Your task to perform on an android device: delete location history Image 0: 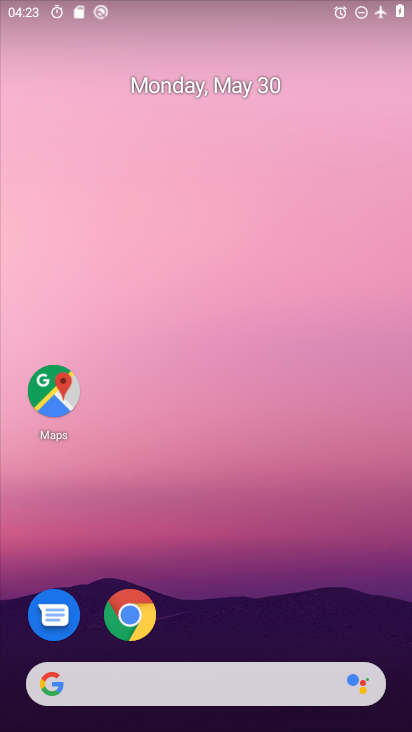
Step 0: click (52, 393)
Your task to perform on an android device: delete location history Image 1: 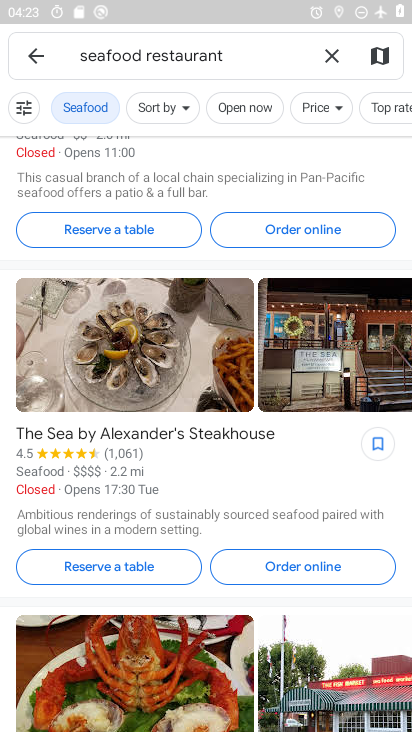
Step 1: click (329, 56)
Your task to perform on an android device: delete location history Image 2: 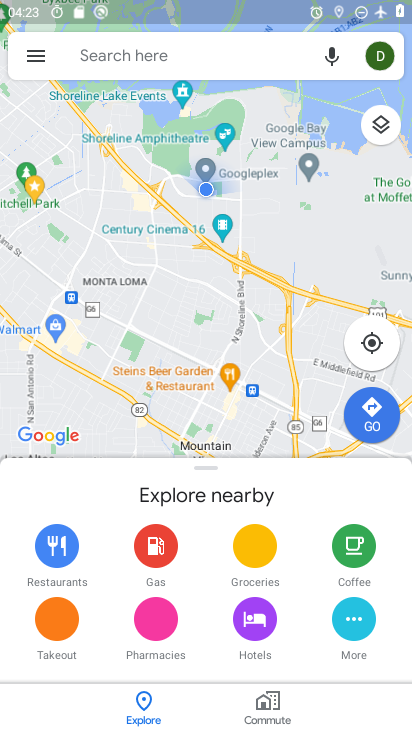
Step 2: click (36, 61)
Your task to perform on an android device: delete location history Image 3: 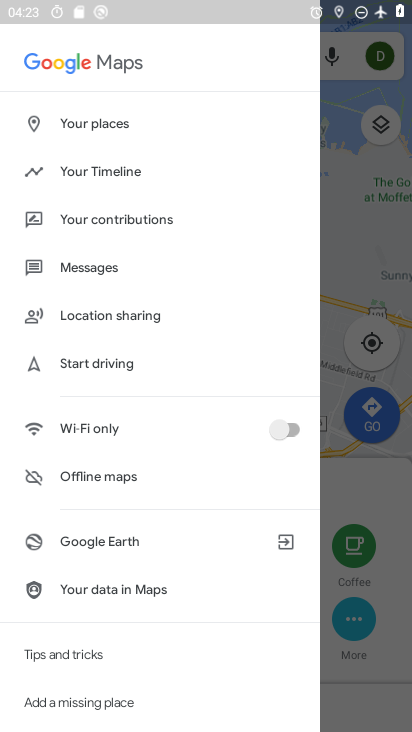
Step 3: drag from (91, 523) to (117, 420)
Your task to perform on an android device: delete location history Image 4: 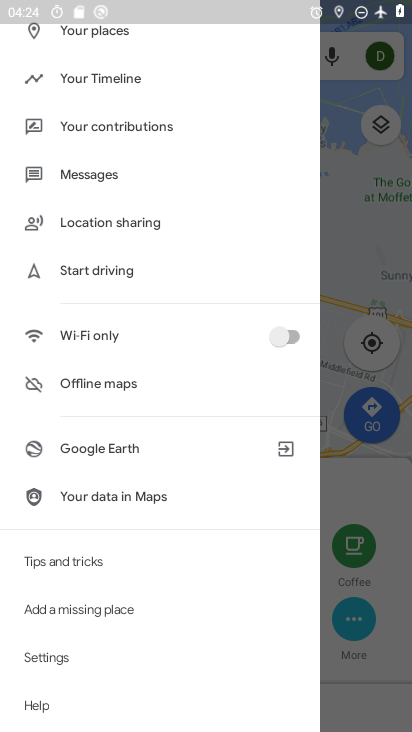
Step 4: drag from (93, 582) to (89, 476)
Your task to perform on an android device: delete location history Image 5: 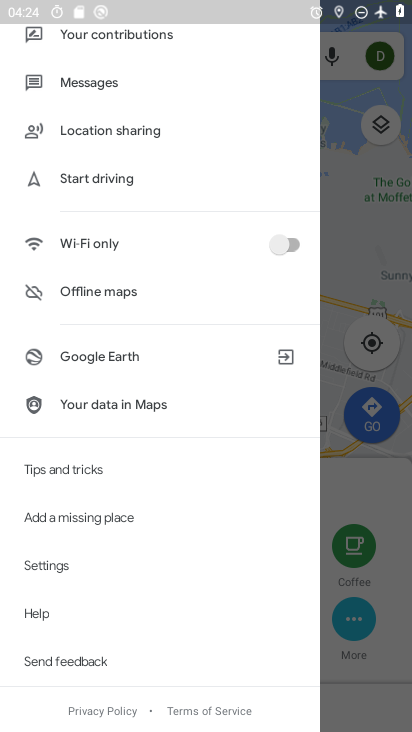
Step 5: click (61, 564)
Your task to perform on an android device: delete location history Image 6: 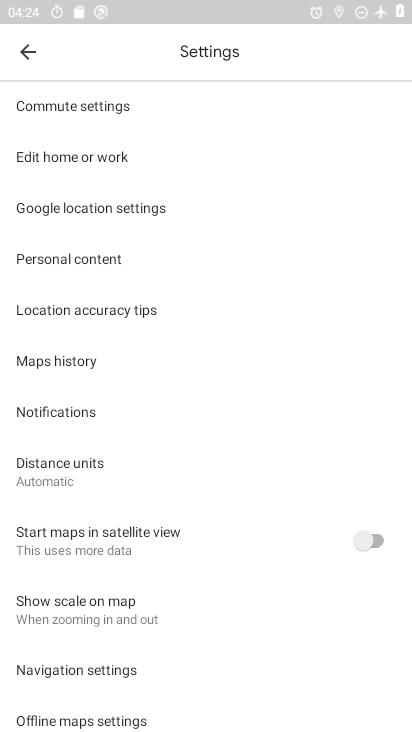
Step 6: click (63, 250)
Your task to perform on an android device: delete location history Image 7: 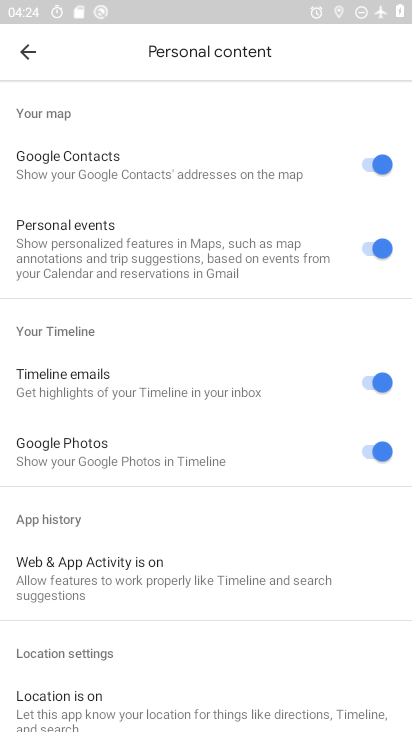
Step 7: drag from (108, 491) to (168, 390)
Your task to perform on an android device: delete location history Image 8: 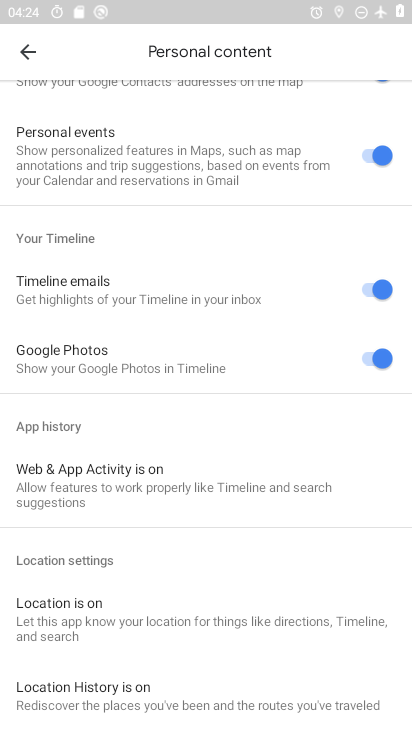
Step 8: drag from (141, 579) to (199, 483)
Your task to perform on an android device: delete location history Image 9: 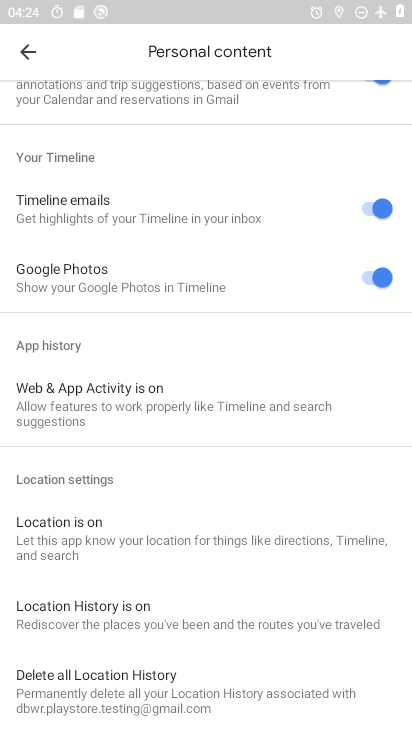
Step 9: drag from (125, 638) to (242, 444)
Your task to perform on an android device: delete location history Image 10: 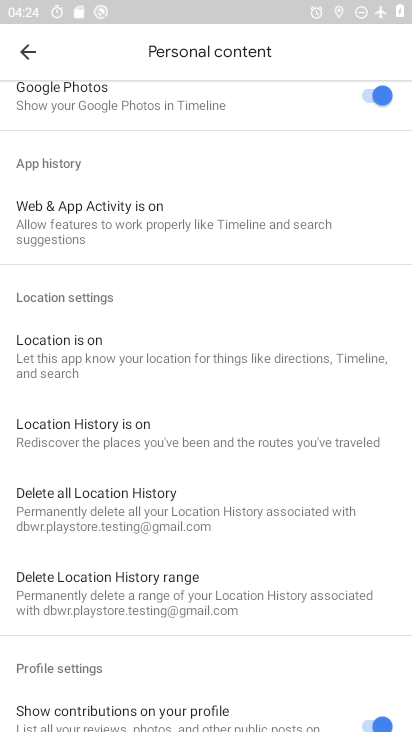
Step 10: click (169, 517)
Your task to perform on an android device: delete location history Image 11: 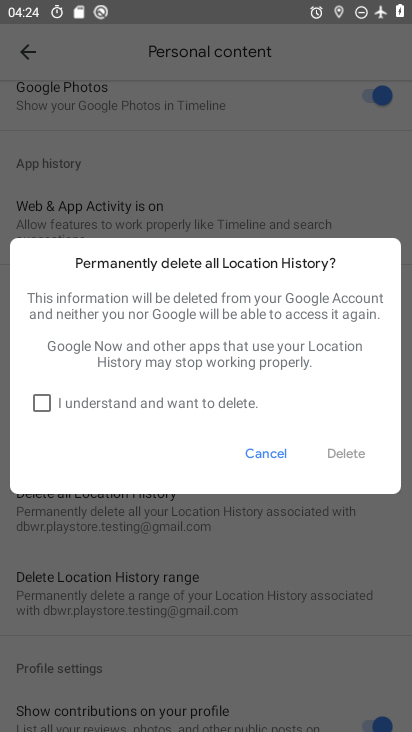
Step 11: click (44, 396)
Your task to perform on an android device: delete location history Image 12: 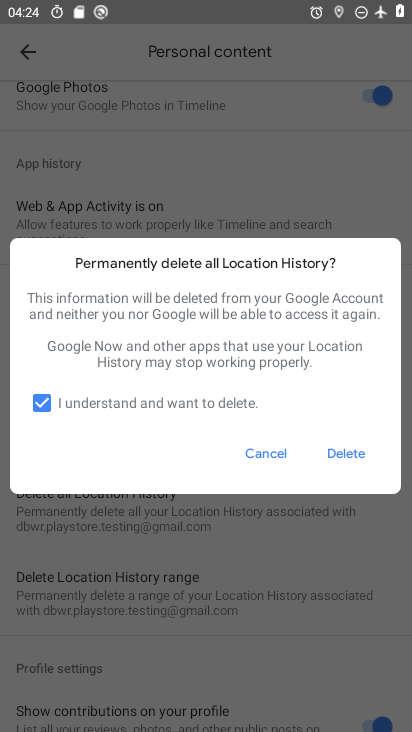
Step 12: click (357, 446)
Your task to perform on an android device: delete location history Image 13: 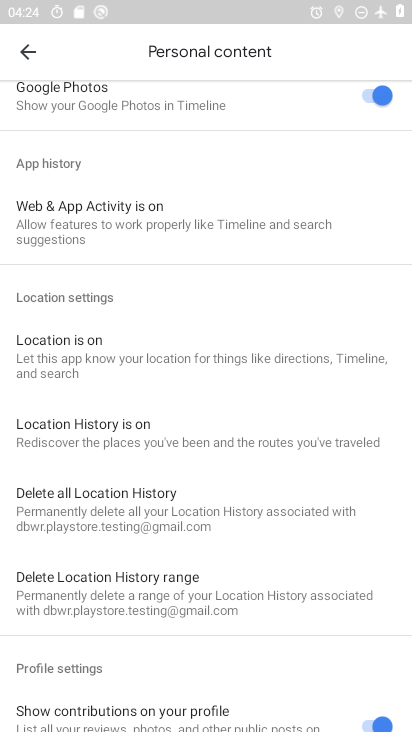
Step 13: task complete